Your task to perform on an android device: Go to ESPN.com Image 0: 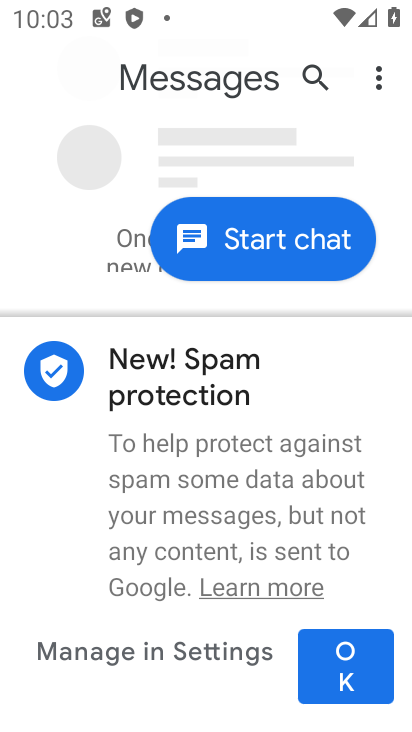
Step 0: press home button
Your task to perform on an android device: Go to ESPN.com Image 1: 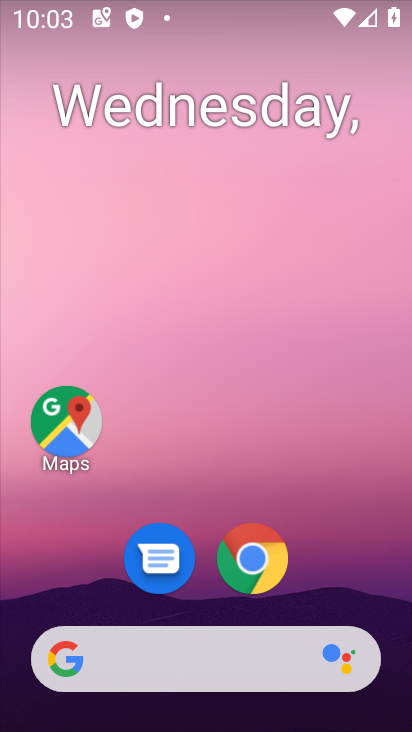
Step 1: click (240, 572)
Your task to perform on an android device: Go to ESPN.com Image 2: 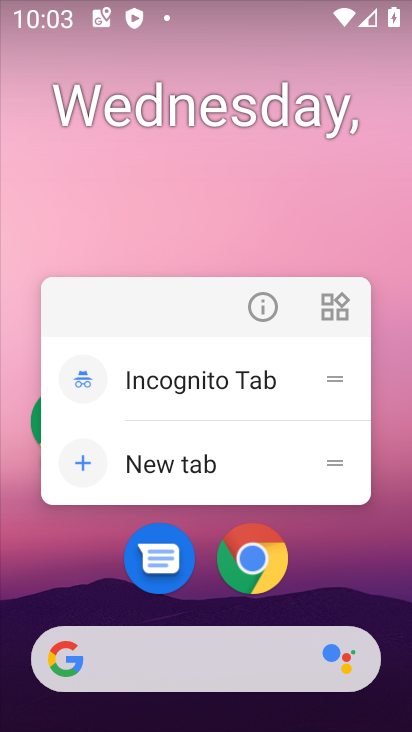
Step 2: click (249, 542)
Your task to perform on an android device: Go to ESPN.com Image 3: 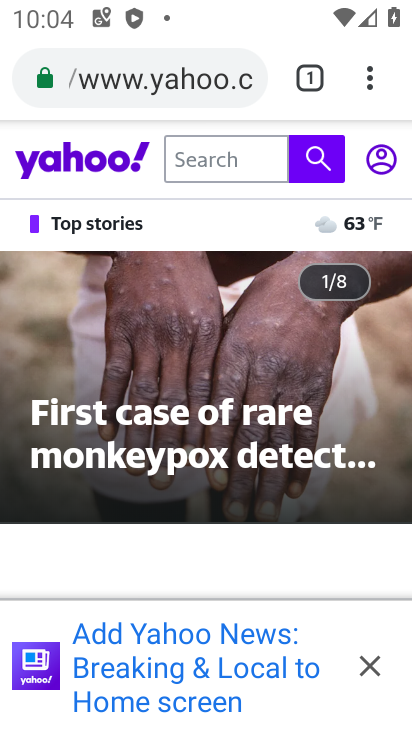
Step 3: click (301, 78)
Your task to perform on an android device: Go to ESPN.com Image 4: 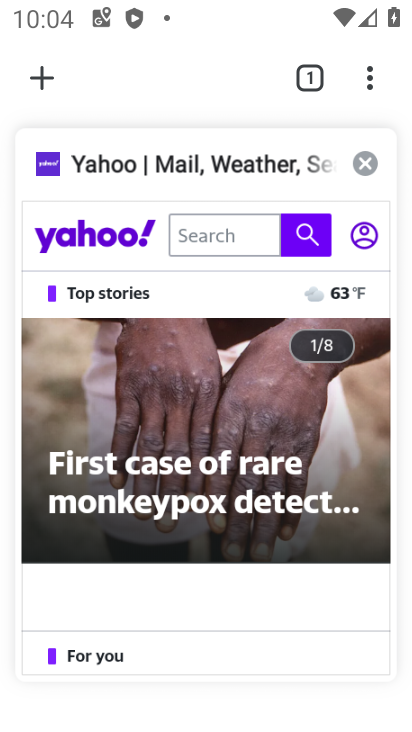
Step 4: click (375, 162)
Your task to perform on an android device: Go to ESPN.com Image 5: 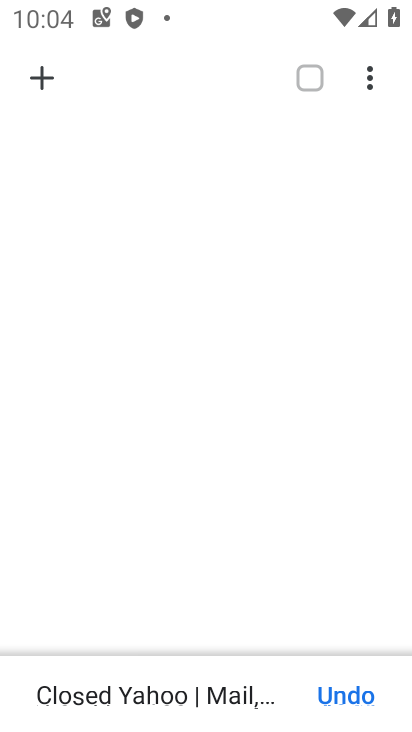
Step 5: click (39, 80)
Your task to perform on an android device: Go to ESPN.com Image 6: 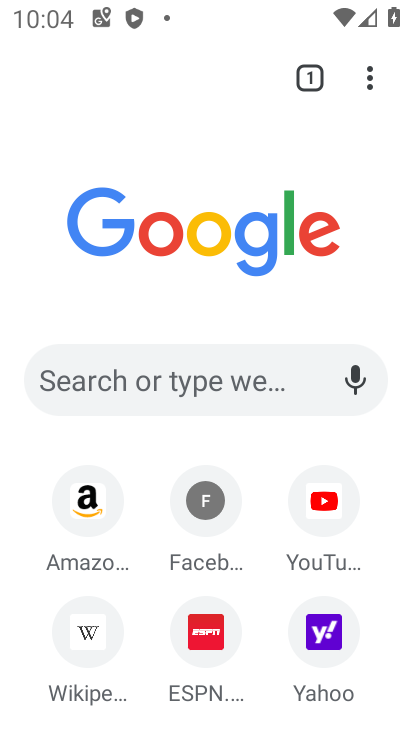
Step 6: click (204, 631)
Your task to perform on an android device: Go to ESPN.com Image 7: 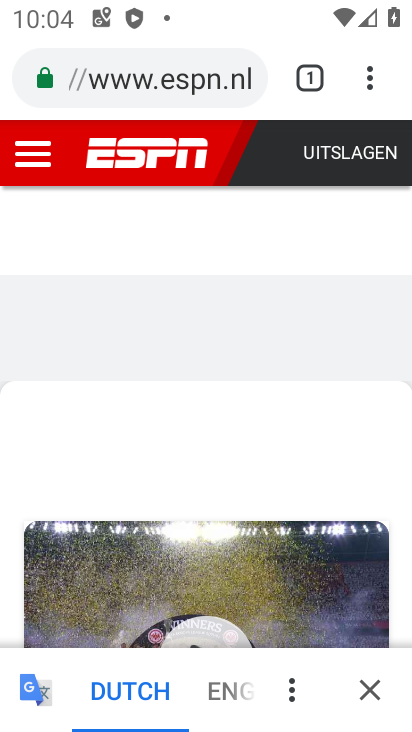
Step 7: task complete